Your task to perform on an android device: open wifi settings Image 0: 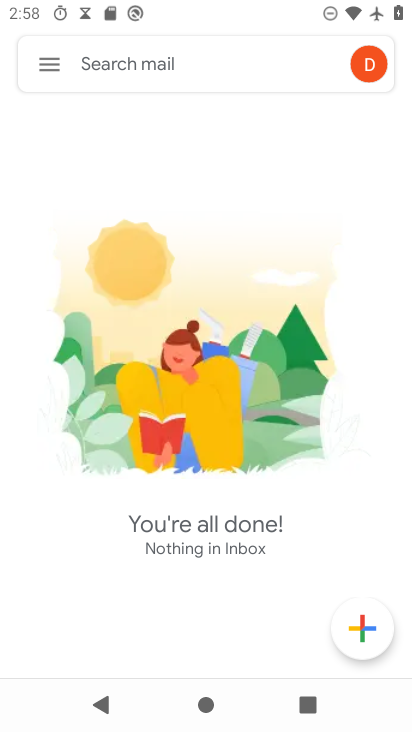
Step 0: press home button
Your task to perform on an android device: open wifi settings Image 1: 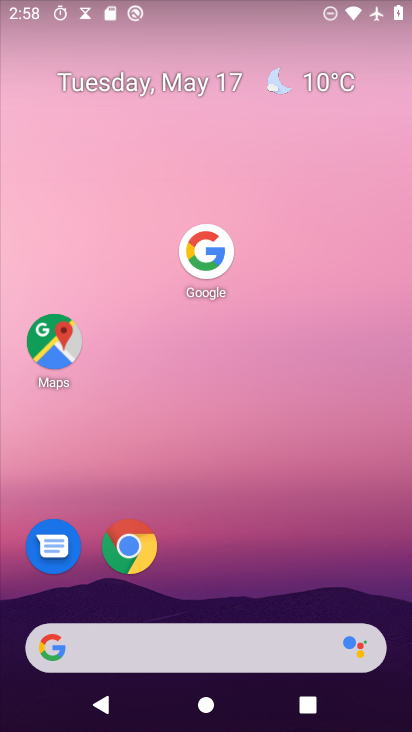
Step 1: drag from (169, 652) to (327, 175)
Your task to perform on an android device: open wifi settings Image 2: 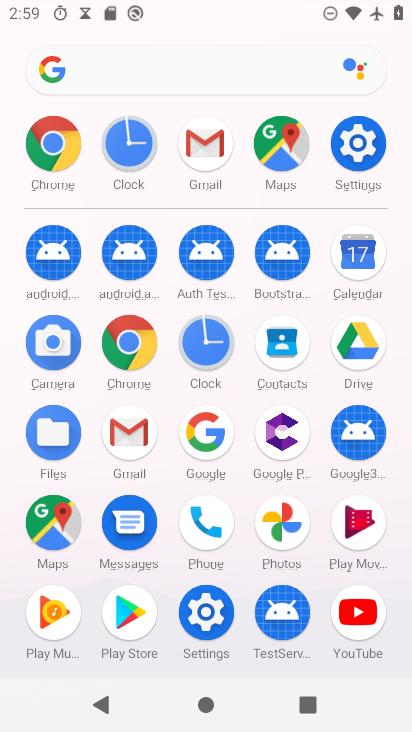
Step 2: click (355, 149)
Your task to perform on an android device: open wifi settings Image 3: 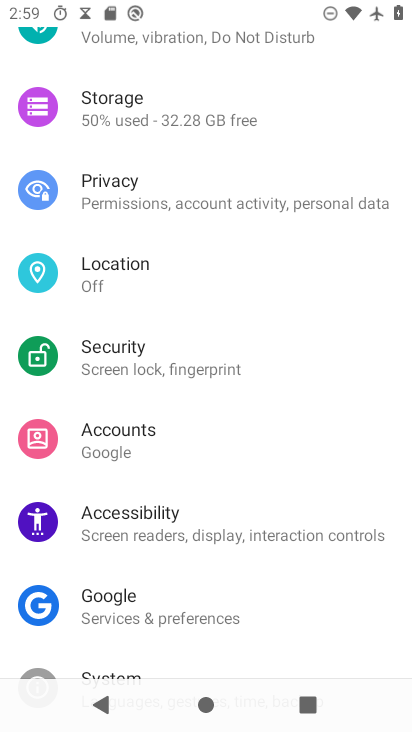
Step 3: drag from (318, 93) to (256, 574)
Your task to perform on an android device: open wifi settings Image 4: 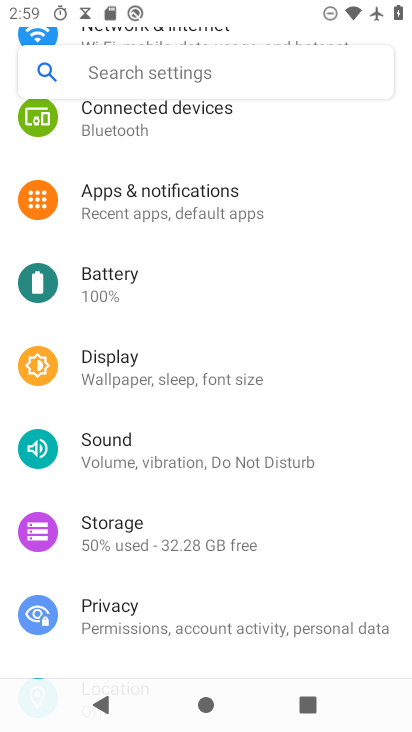
Step 4: drag from (291, 206) to (244, 580)
Your task to perform on an android device: open wifi settings Image 5: 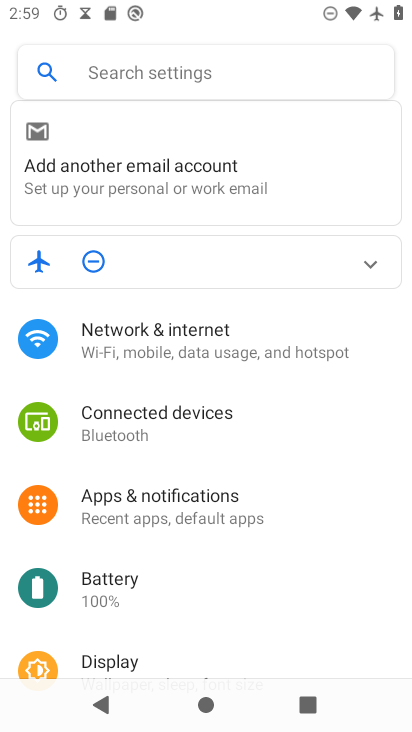
Step 5: click (204, 335)
Your task to perform on an android device: open wifi settings Image 6: 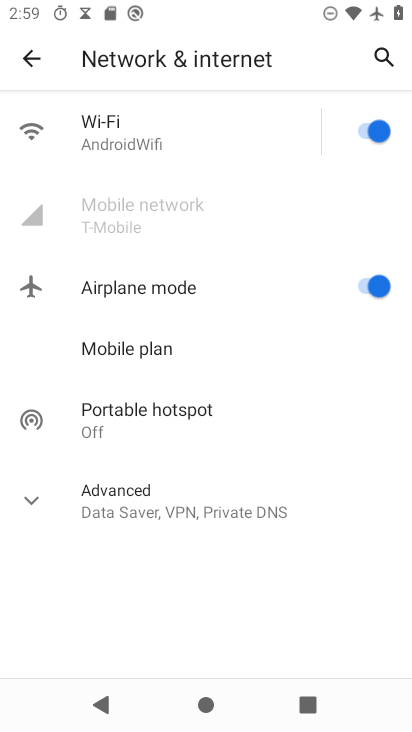
Step 6: click (137, 138)
Your task to perform on an android device: open wifi settings Image 7: 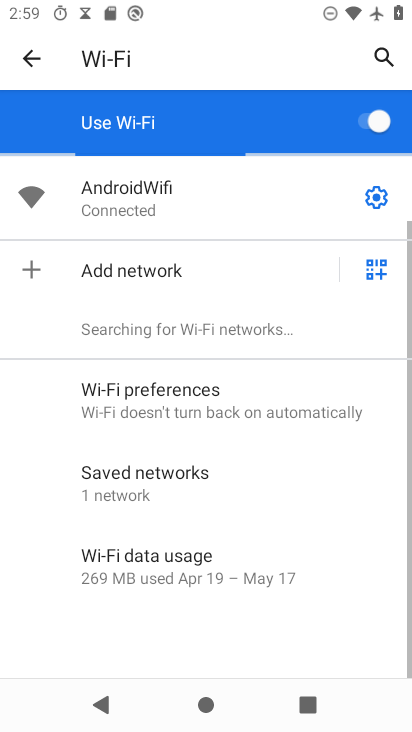
Step 7: task complete